Your task to perform on an android device: Go to wifi settings Image 0: 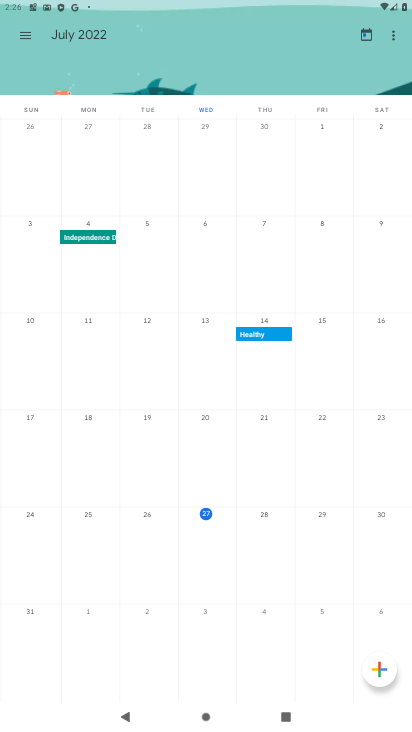
Step 0: task complete